Your task to perform on an android device: Go to Yahoo.com Image 0: 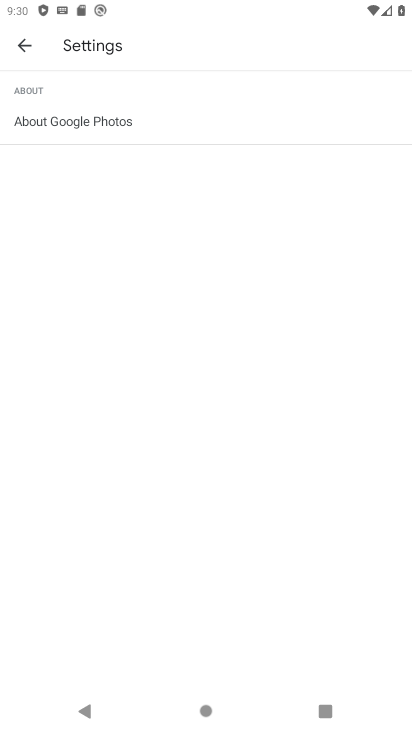
Step 0: press home button
Your task to perform on an android device: Go to Yahoo.com Image 1: 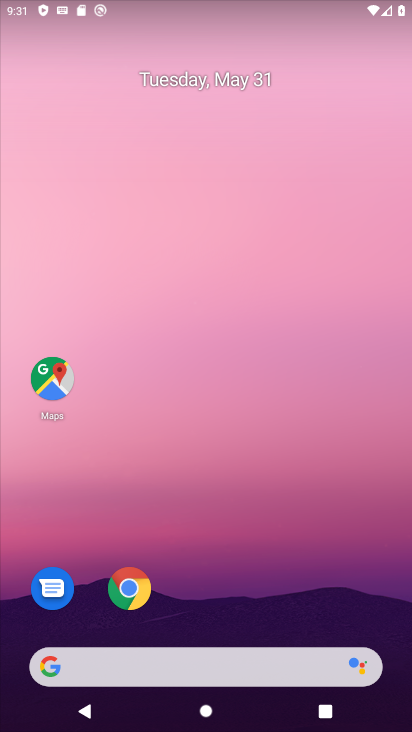
Step 1: click (229, 678)
Your task to perform on an android device: Go to Yahoo.com Image 2: 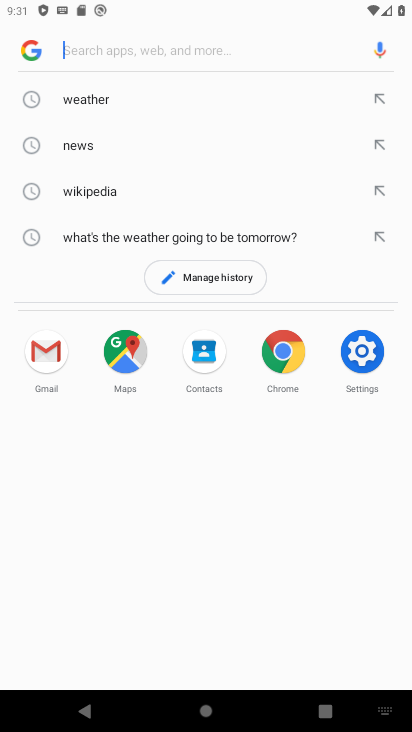
Step 2: type "yahoo.com"
Your task to perform on an android device: Go to Yahoo.com Image 3: 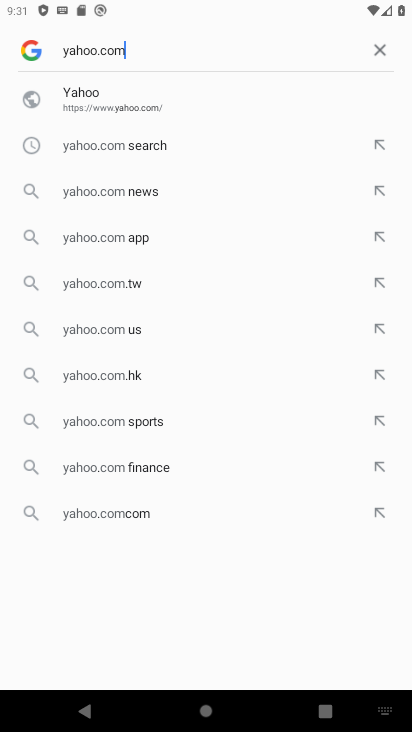
Step 3: click (76, 113)
Your task to perform on an android device: Go to Yahoo.com Image 4: 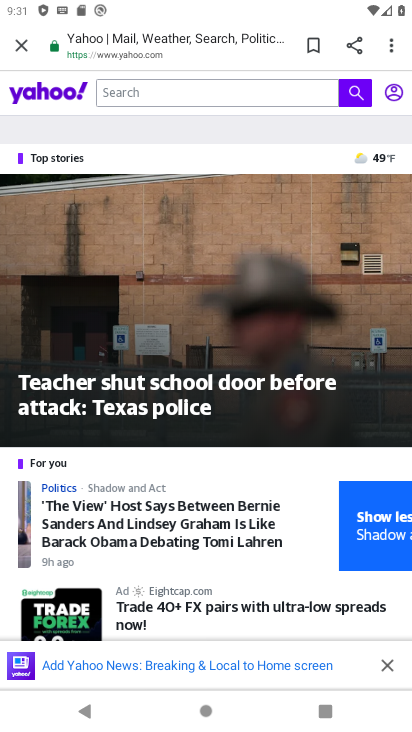
Step 4: task complete